Your task to perform on an android device: open a new tab in the chrome app Image 0: 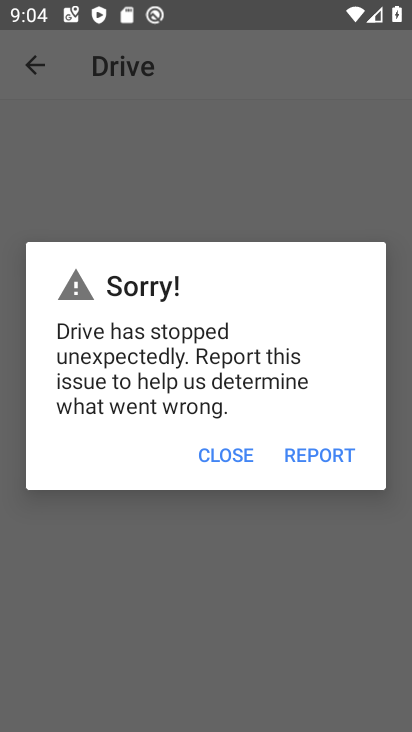
Step 0: press home button
Your task to perform on an android device: open a new tab in the chrome app Image 1: 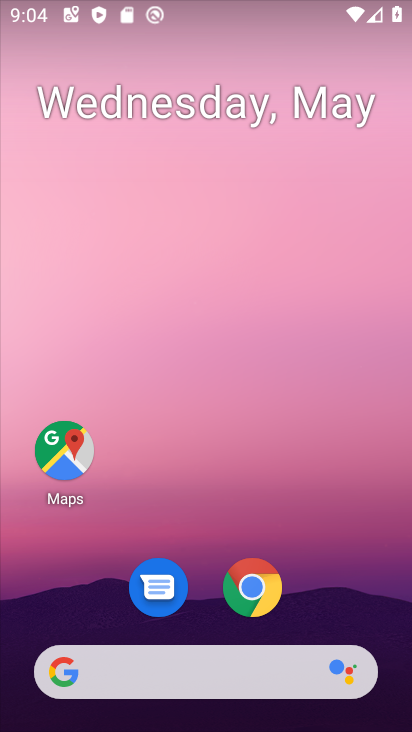
Step 1: click (253, 595)
Your task to perform on an android device: open a new tab in the chrome app Image 2: 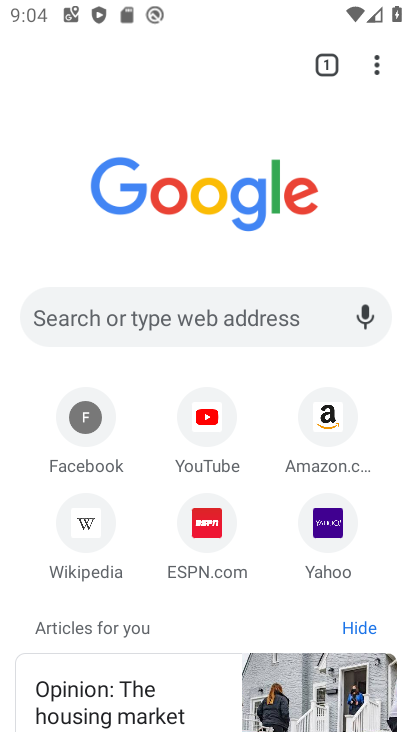
Step 2: click (378, 71)
Your task to perform on an android device: open a new tab in the chrome app Image 3: 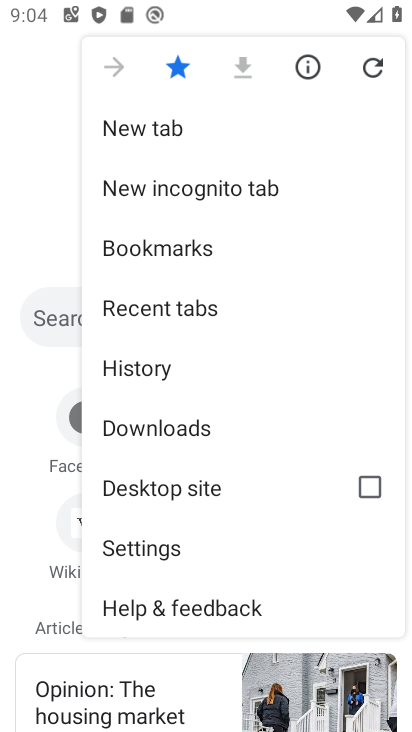
Step 3: click (142, 132)
Your task to perform on an android device: open a new tab in the chrome app Image 4: 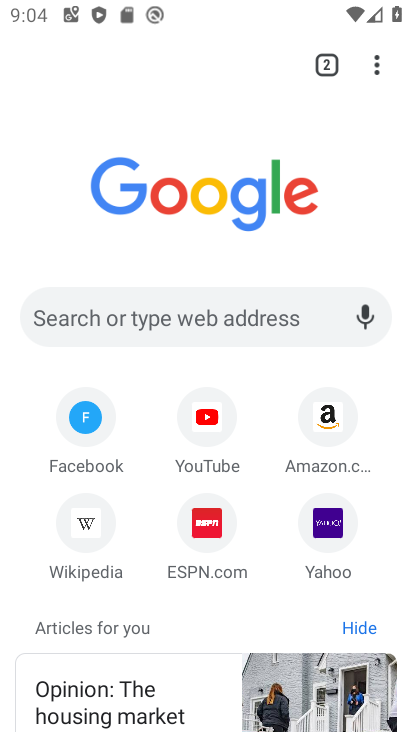
Step 4: task complete